Your task to perform on an android device: Is it going to rain this weekend? Image 0: 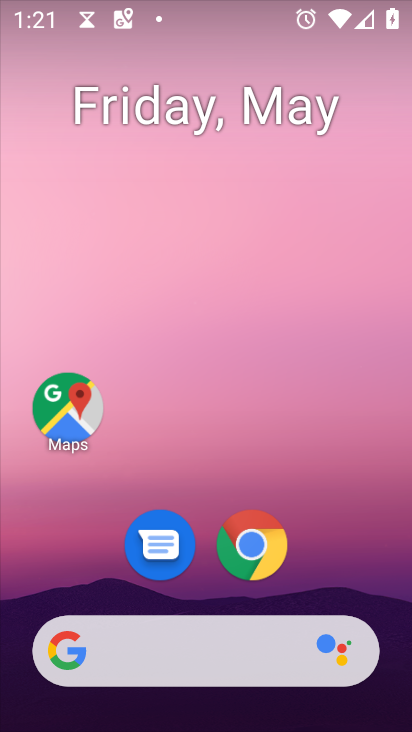
Step 0: click (171, 666)
Your task to perform on an android device: Is it going to rain this weekend? Image 1: 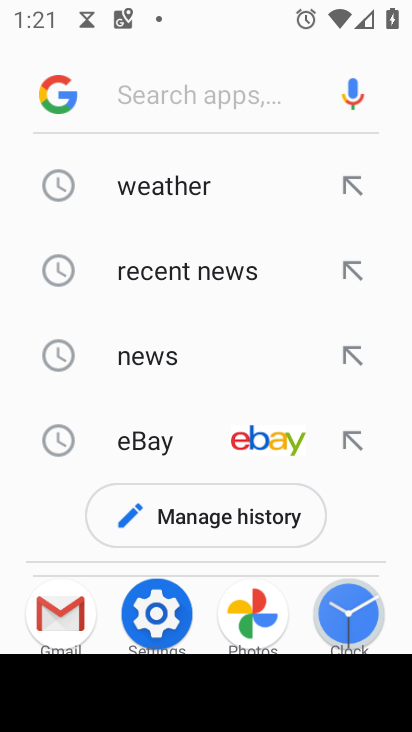
Step 1: click (158, 179)
Your task to perform on an android device: Is it going to rain this weekend? Image 2: 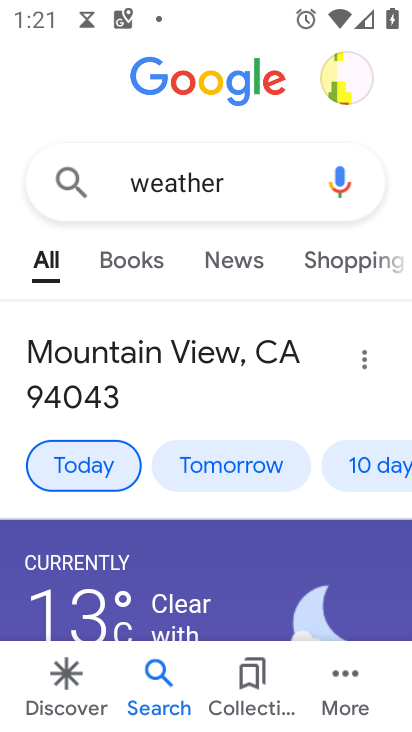
Step 2: click (390, 473)
Your task to perform on an android device: Is it going to rain this weekend? Image 3: 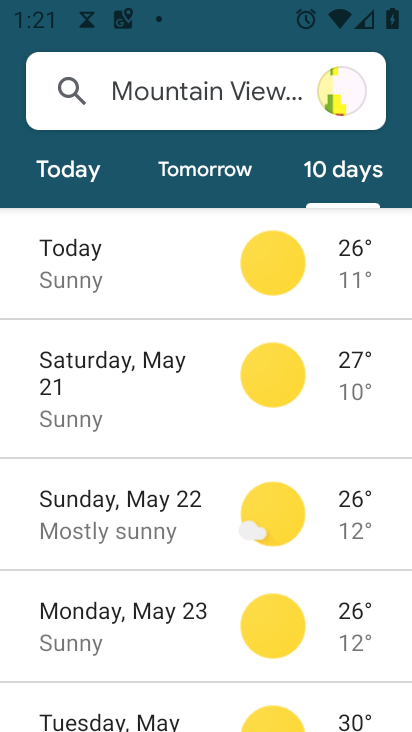
Step 3: task complete